Your task to perform on an android device: allow notifications from all sites in the chrome app Image 0: 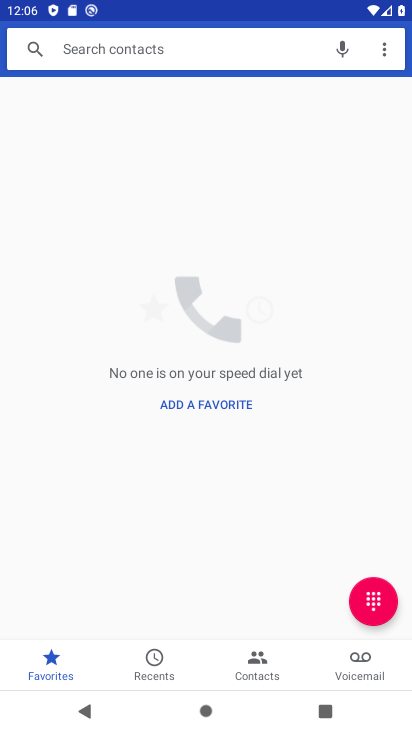
Step 0: press back button
Your task to perform on an android device: allow notifications from all sites in the chrome app Image 1: 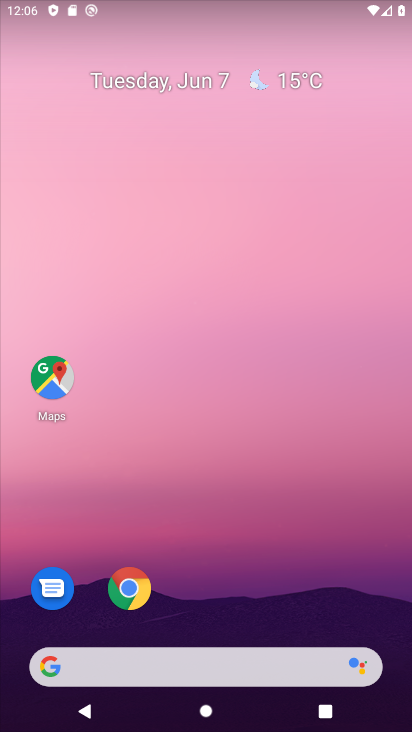
Step 1: click (132, 593)
Your task to perform on an android device: allow notifications from all sites in the chrome app Image 2: 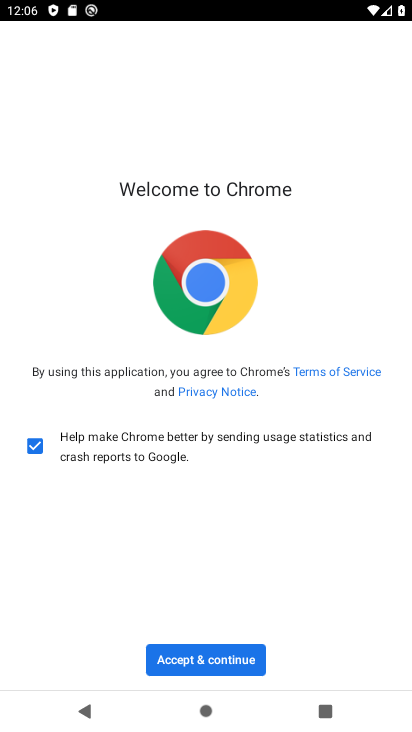
Step 2: click (215, 671)
Your task to perform on an android device: allow notifications from all sites in the chrome app Image 3: 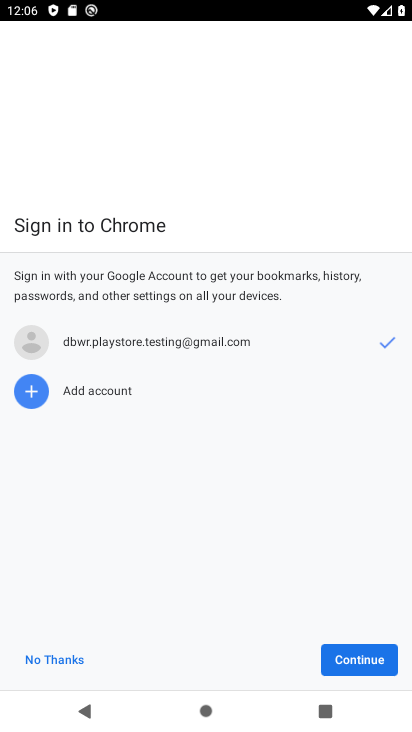
Step 3: click (333, 660)
Your task to perform on an android device: allow notifications from all sites in the chrome app Image 4: 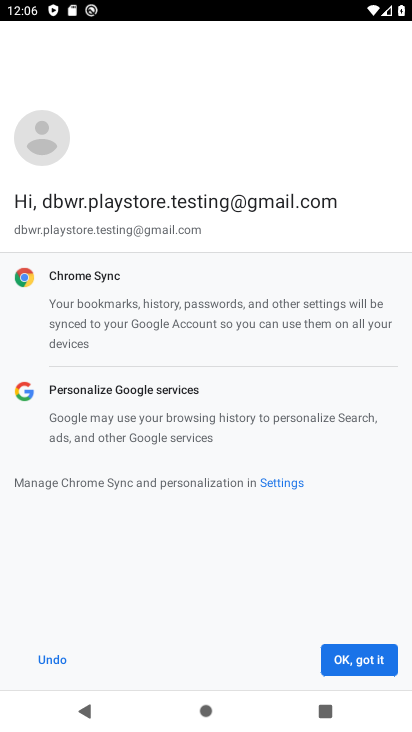
Step 4: click (333, 660)
Your task to perform on an android device: allow notifications from all sites in the chrome app Image 5: 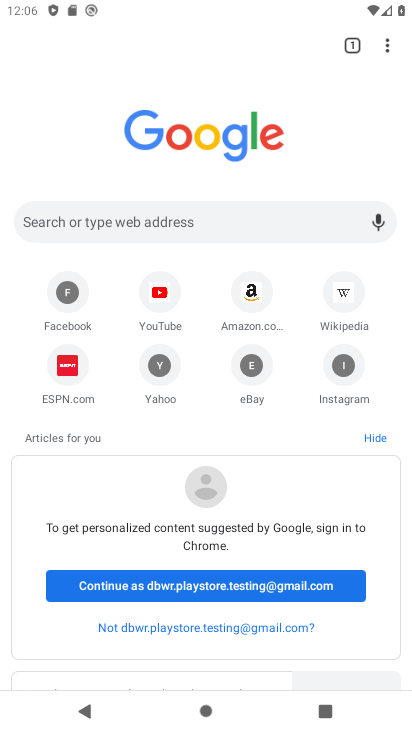
Step 5: drag from (393, 43) to (244, 388)
Your task to perform on an android device: allow notifications from all sites in the chrome app Image 6: 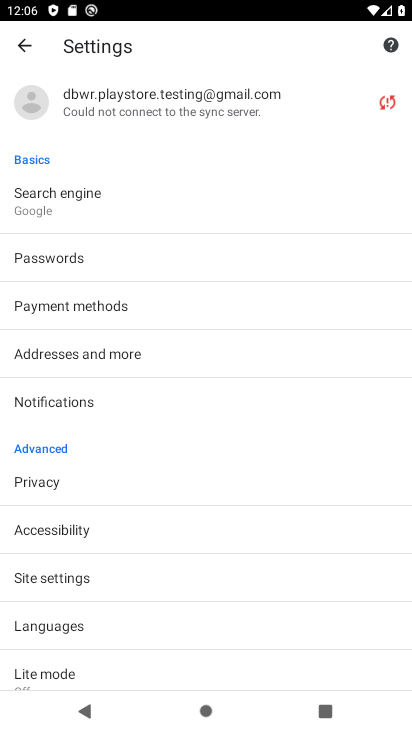
Step 6: click (50, 403)
Your task to perform on an android device: allow notifications from all sites in the chrome app Image 7: 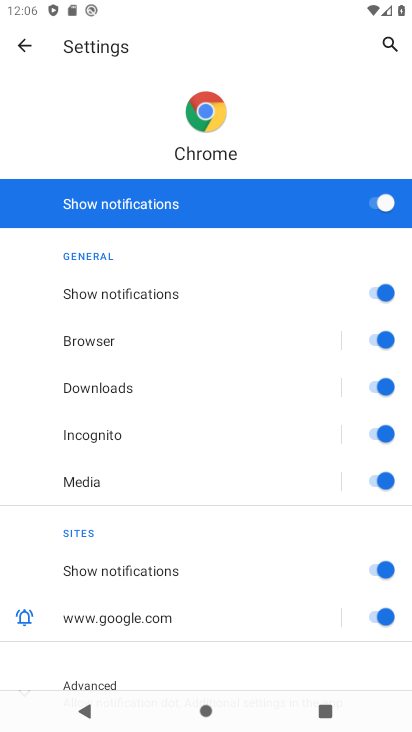
Step 7: task complete